Your task to perform on an android device: Go to Google maps Image 0: 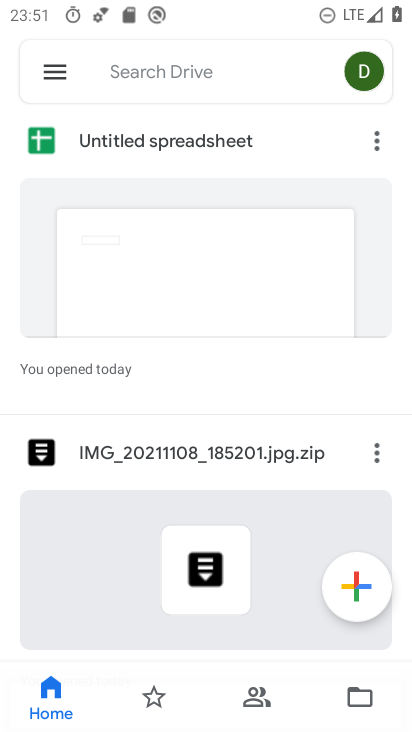
Step 0: press home button
Your task to perform on an android device: Go to Google maps Image 1: 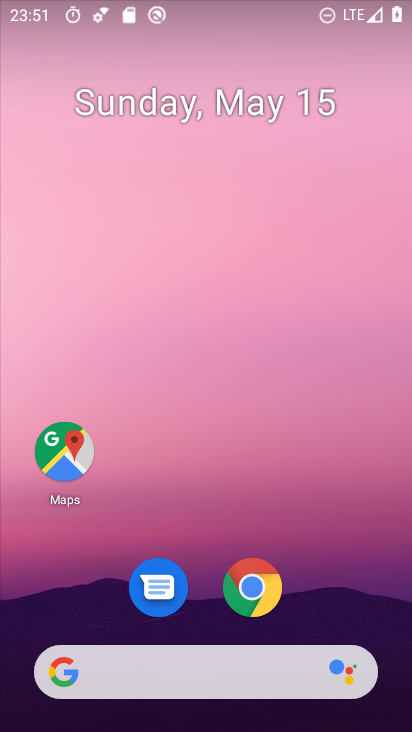
Step 1: click (74, 464)
Your task to perform on an android device: Go to Google maps Image 2: 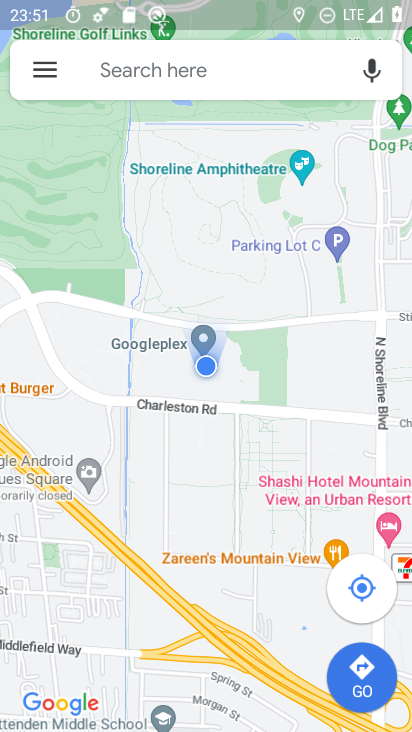
Step 2: task complete